Your task to perform on an android device: toggle notification dots Image 0: 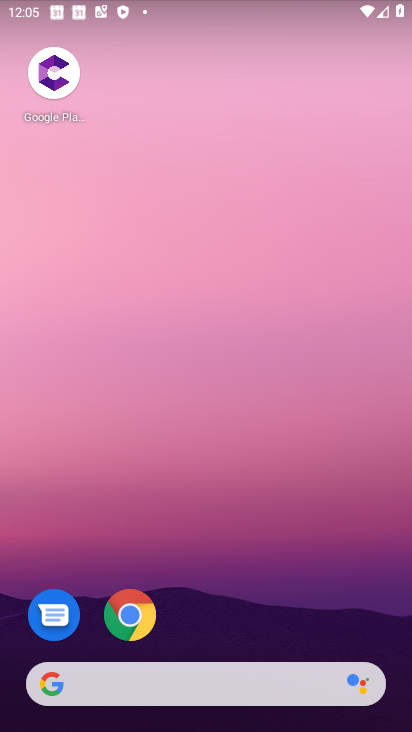
Step 0: drag from (228, 606) to (291, 26)
Your task to perform on an android device: toggle notification dots Image 1: 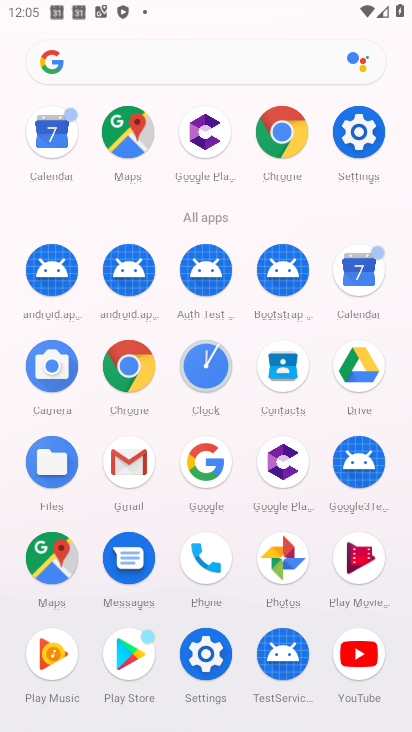
Step 1: click (359, 135)
Your task to perform on an android device: toggle notification dots Image 2: 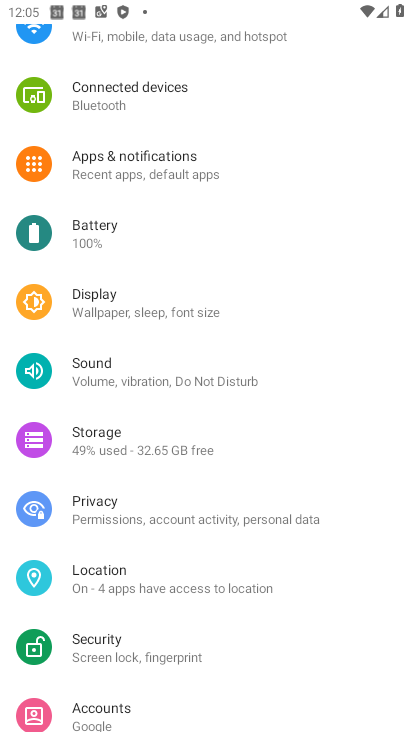
Step 2: click (66, 165)
Your task to perform on an android device: toggle notification dots Image 3: 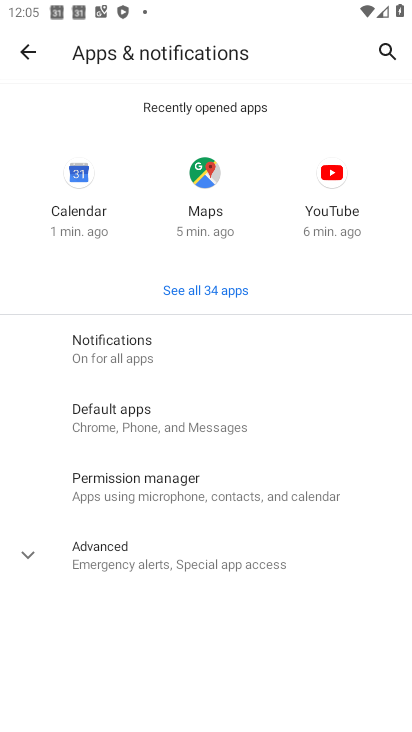
Step 3: click (121, 339)
Your task to perform on an android device: toggle notification dots Image 4: 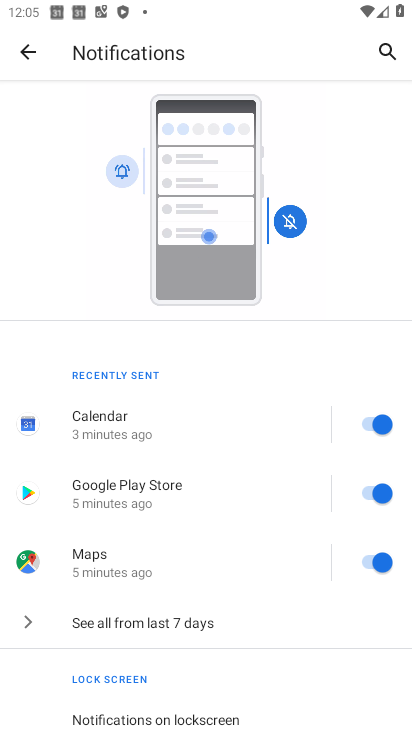
Step 4: drag from (119, 660) to (219, 191)
Your task to perform on an android device: toggle notification dots Image 5: 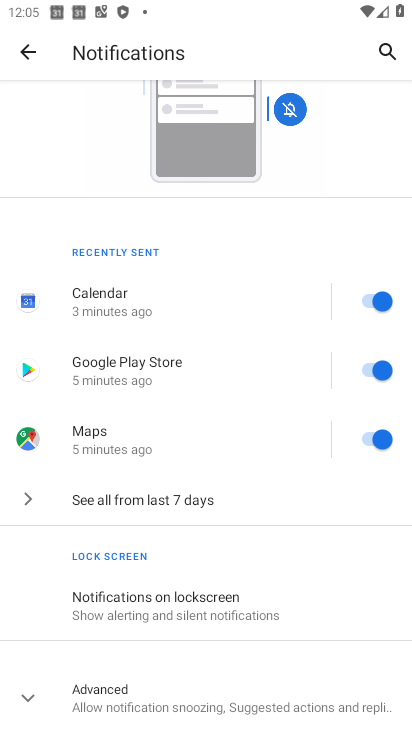
Step 5: click (140, 704)
Your task to perform on an android device: toggle notification dots Image 6: 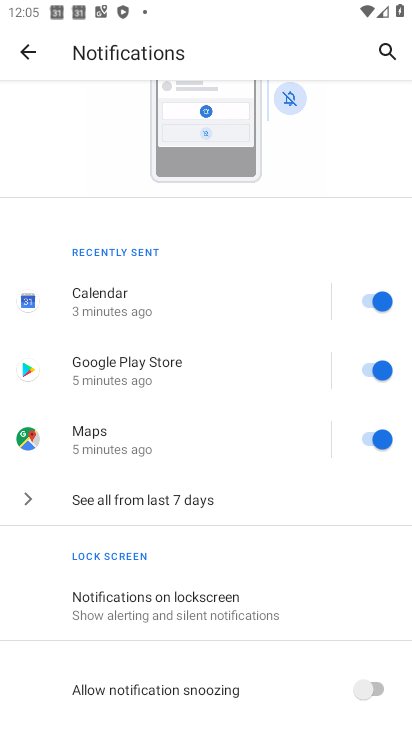
Step 6: drag from (208, 629) to (275, 122)
Your task to perform on an android device: toggle notification dots Image 7: 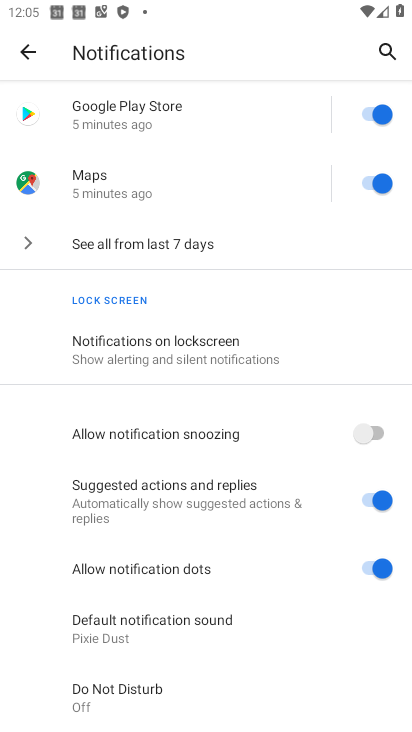
Step 7: drag from (164, 634) to (212, 298)
Your task to perform on an android device: toggle notification dots Image 8: 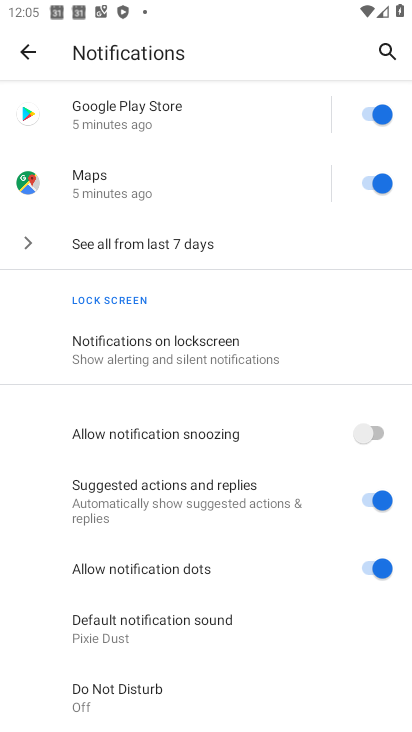
Step 8: click (371, 574)
Your task to perform on an android device: toggle notification dots Image 9: 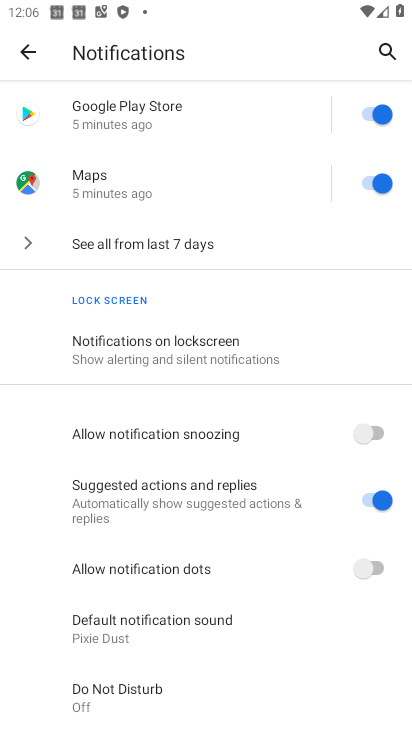
Step 9: task complete